Your task to perform on an android device: turn pop-ups off in chrome Image 0: 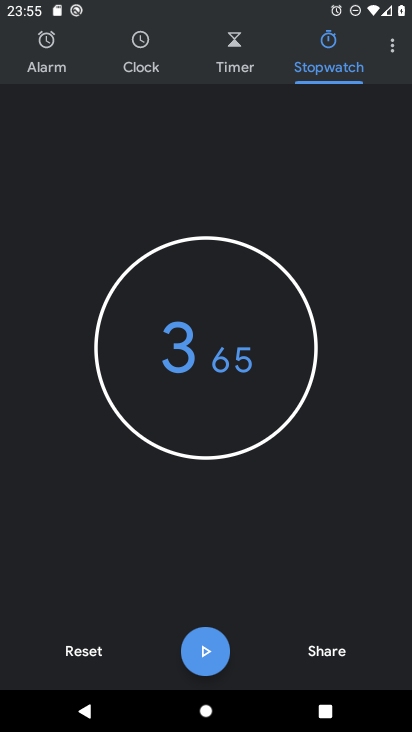
Step 0: press home button
Your task to perform on an android device: turn pop-ups off in chrome Image 1: 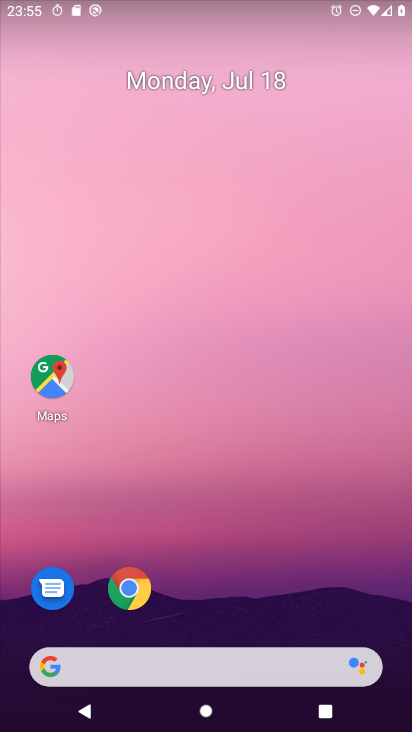
Step 1: click (126, 590)
Your task to perform on an android device: turn pop-ups off in chrome Image 2: 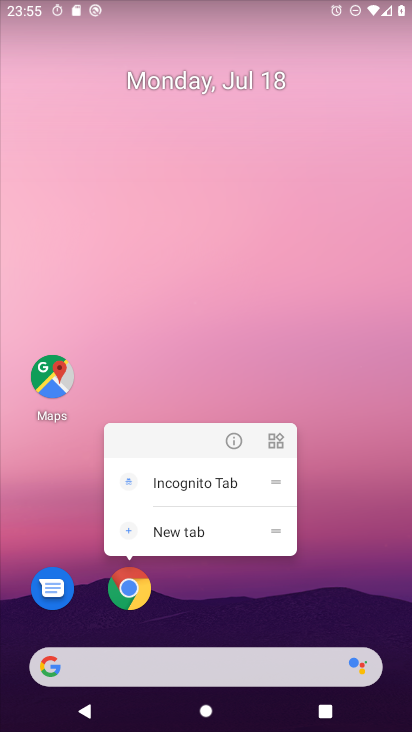
Step 2: click (130, 588)
Your task to perform on an android device: turn pop-ups off in chrome Image 3: 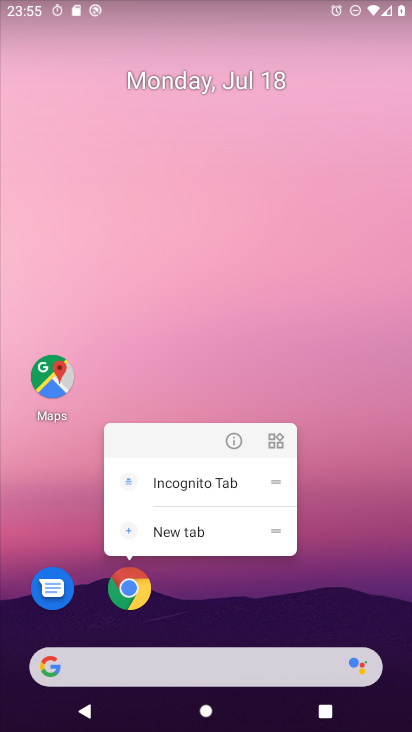
Step 3: click (130, 595)
Your task to perform on an android device: turn pop-ups off in chrome Image 4: 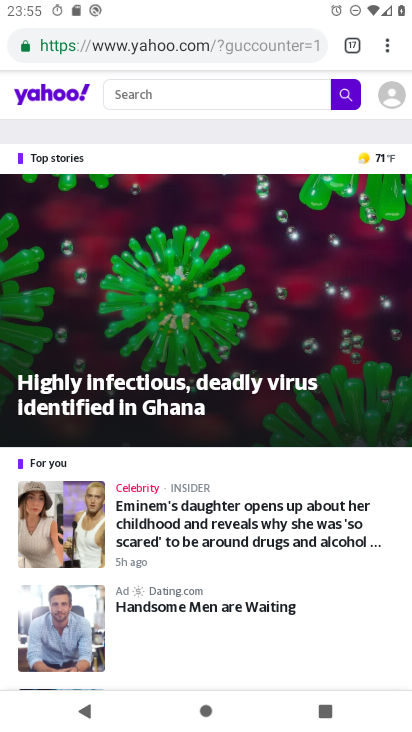
Step 4: drag from (388, 51) to (252, 552)
Your task to perform on an android device: turn pop-ups off in chrome Image 5: 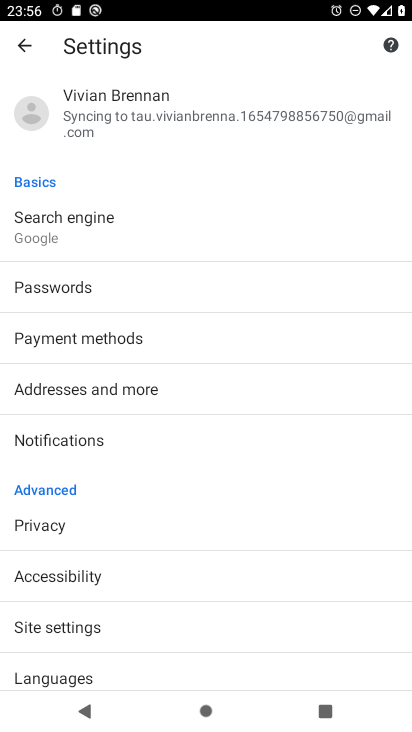
Step 5: click (93, 625)
Your task to perform on an android device: turn pop-ups off in chrome Image 6: 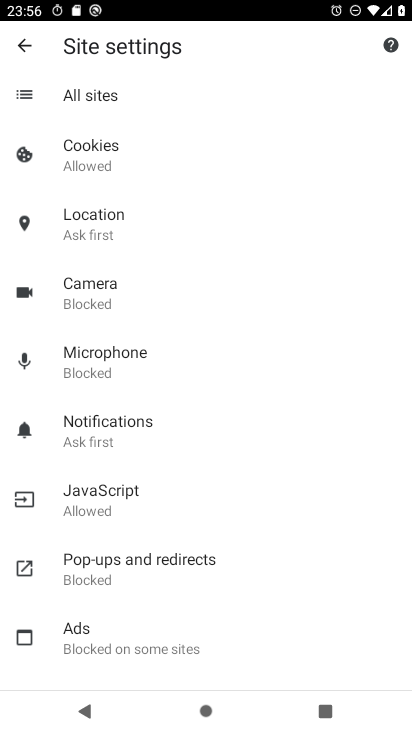
Step 6: click (154, 564)
Your task to perform on an android device: turn pop-ups off in chrome Image 7: 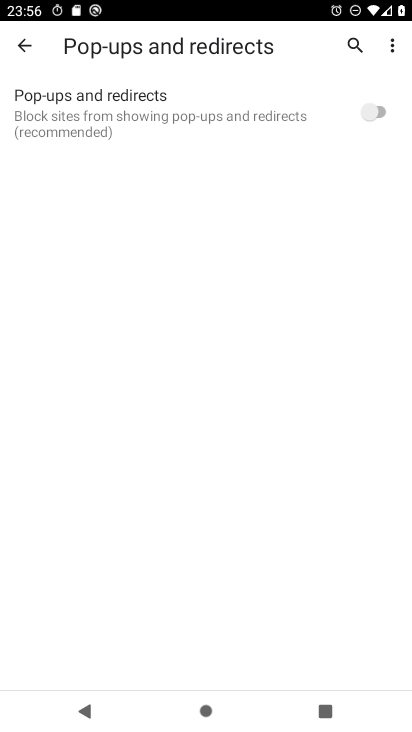
Step 7: task complete